Your task to perform on an android device: Go to ESPN.com Image 0: 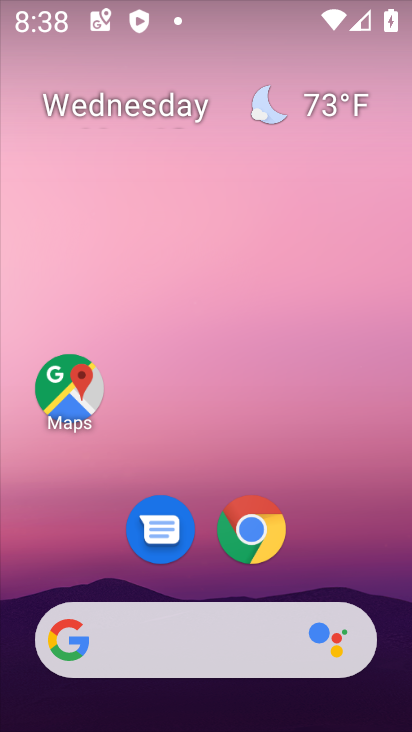
Step 0: drag from (371, 553) to (354, 210)
Your task to perform on an android device: Go to ESPN.com Image 1: 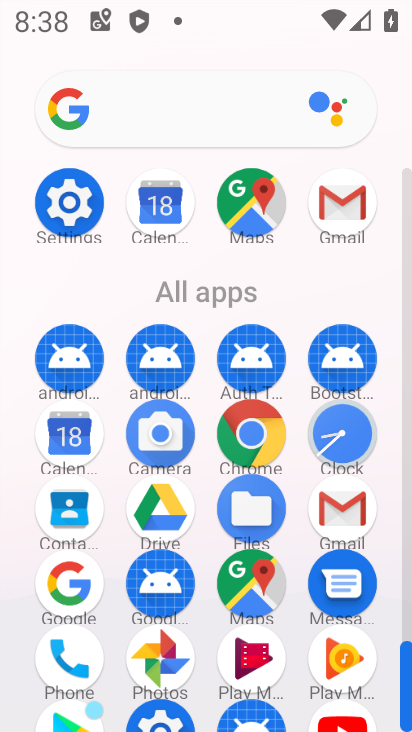
Step 1: click (268, 449)
Your task to perform on an android device: Go to ESPN.com Image 2: 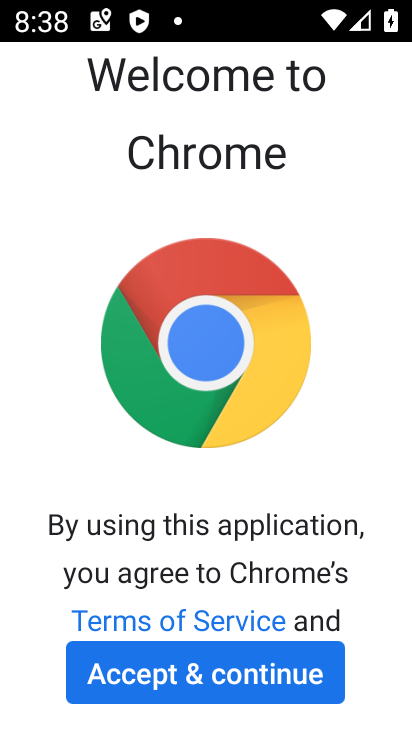
Step 2: click (276, 669)
Your task to perform on an android device: Go to ESPN.com Image 3: 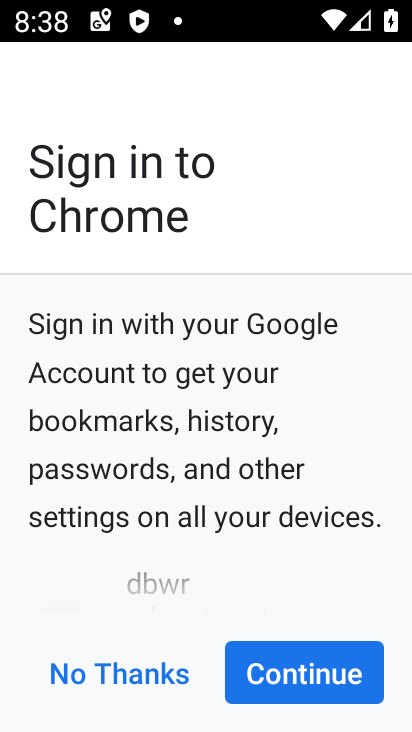
Step 3: click (280, 677)
Your task to perform on an android device: Go to ESPN.com Image 4: 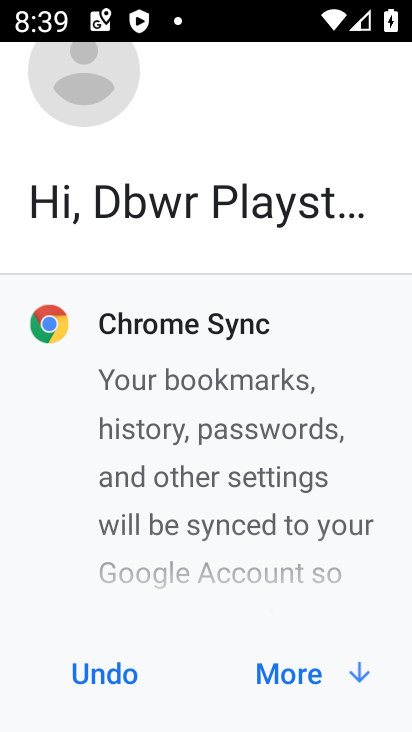
Step 4: click (280, 677)
Your task to perform on an android device: Go to ESPN.com Image 5: 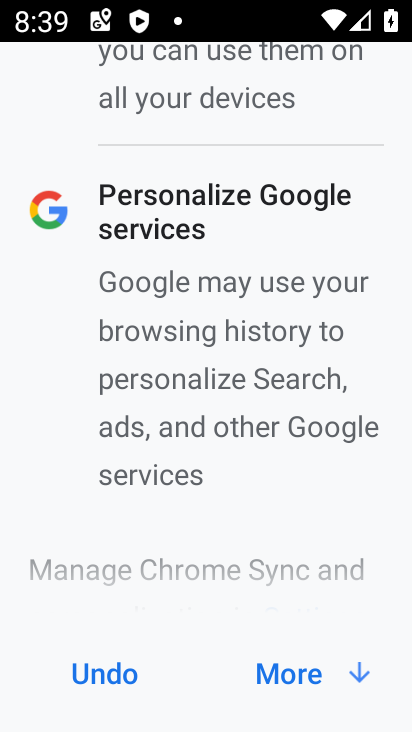
Step 5: click (295, 688)
Your task to perform on an android device: Go to ESPN.com Image 6: 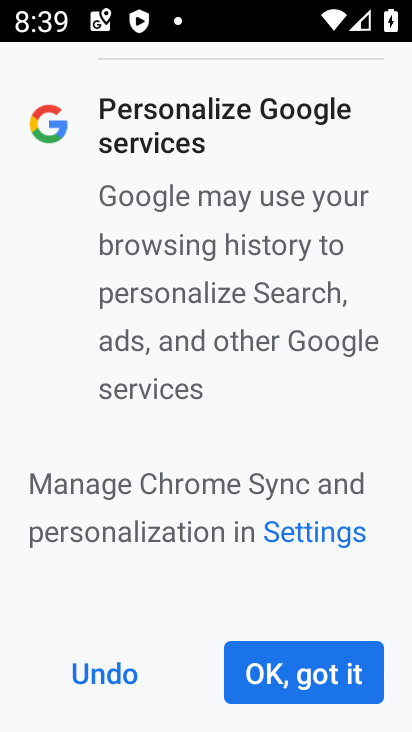
Step 6: click (295, 688)
Your task to perform on an android device: Go to ESPN.com Image 7: 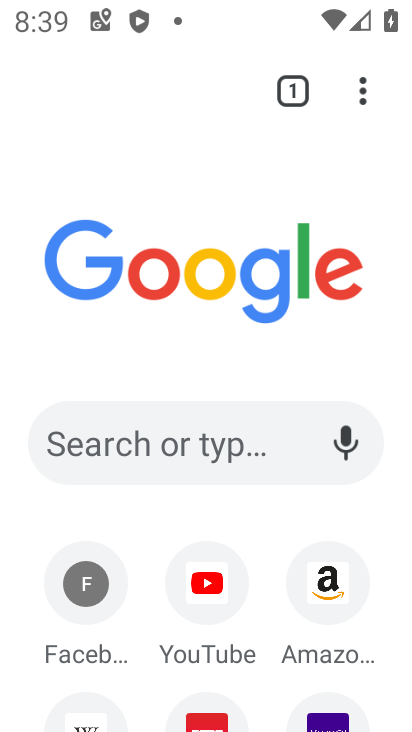
Step 7: drag from (262, 532) to (270, 352)
Your task to perform on an android device: Go to ESPN.com Image 8: 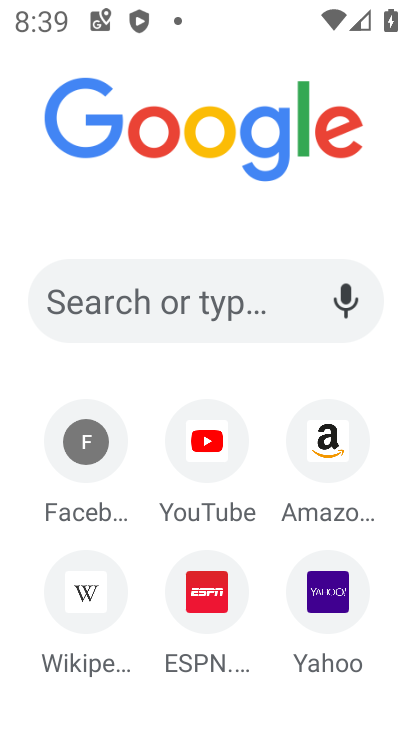
Step 8: click (203, 629)
Your task to perform on an android device: Go to ESPN.com Image 9: 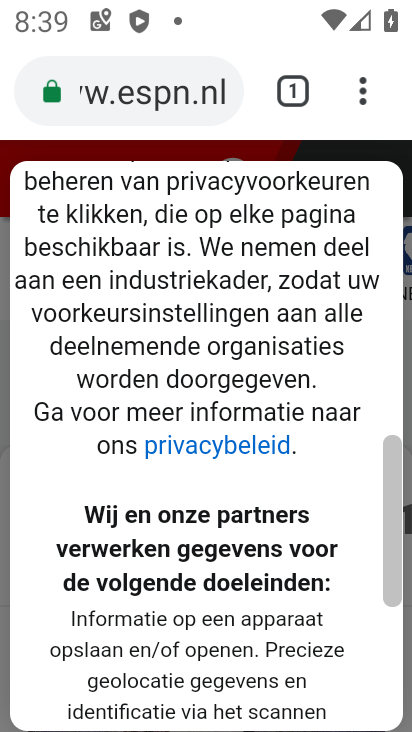
Step 9: task complete